Your task to perform on an android device: stop showing notifications on the lock screen Image 0: 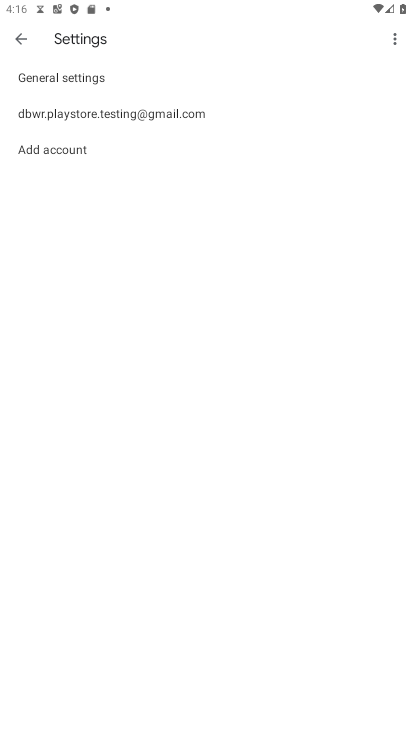
Step 0: press home button
Your task to perform on an android device: stop showing notifications on the lock screen Image 1: 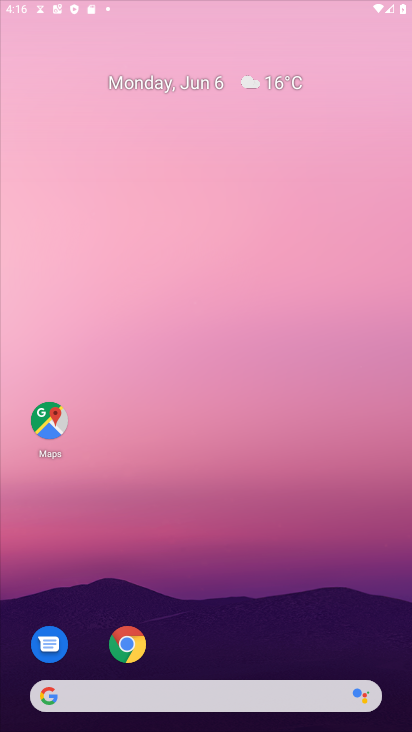
Step 1: drag from (138, 722) to (162, 139)
Your task to perform on an android device: stop showing notifications on the lock screen Image 2: 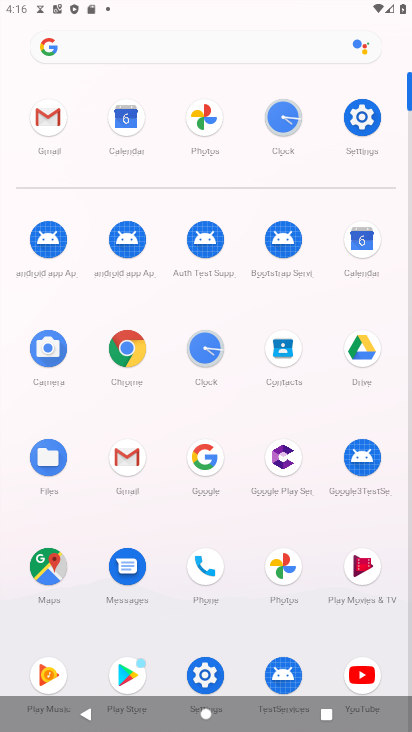
Step 2: click (361, 117)
Your task to perform on an android device: stop showing notifications on the lock screen Image 3: 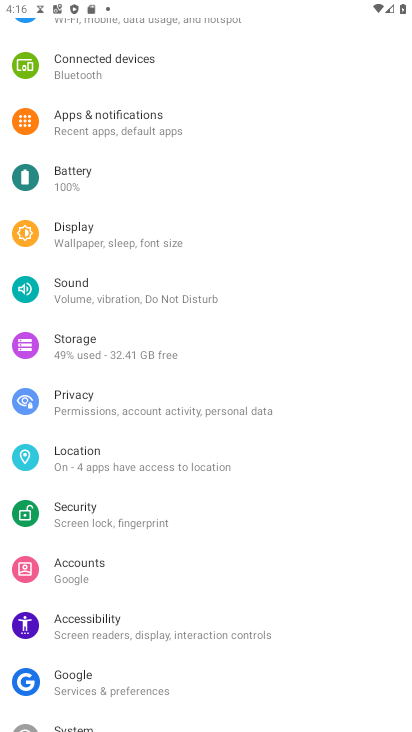
Step 3: click (103, 126)
Your task to perform on an android device: stop showing notifications on the lock screen Image 4: 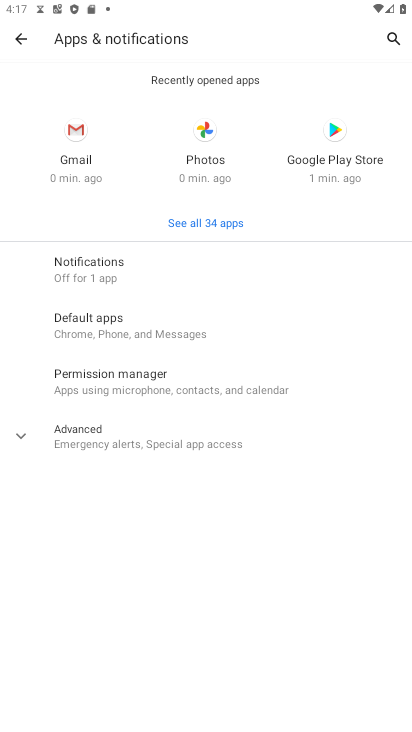
Step 4: click (83, 278)
Your task to perform on an android device: stop showing notifications on the lock screen Image 5: 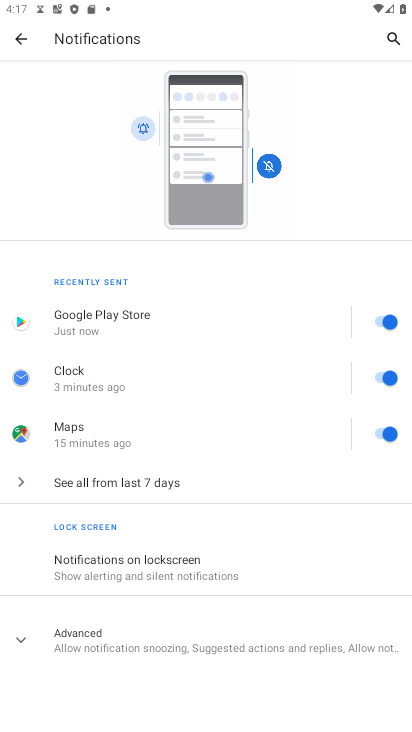
Step 5: click (181, 564)
Your task to perform on an android device: stop showing notifications on the lock screen Image 6: 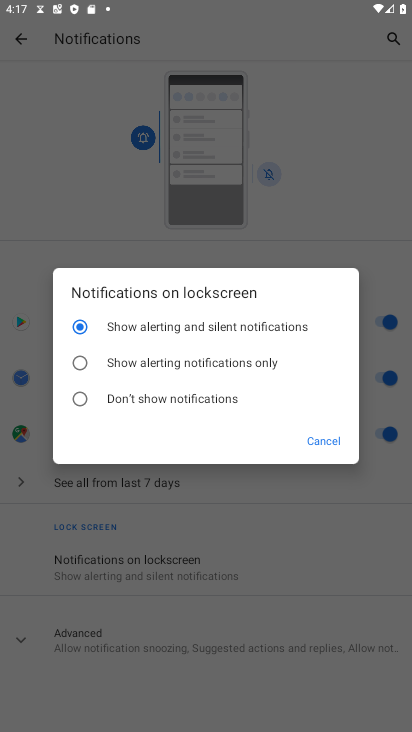
Step 6: task complete